Your task to perform on an android device: Search for "logitech g933" on walmart, select the first entry, and add it to the cart. Image 0: 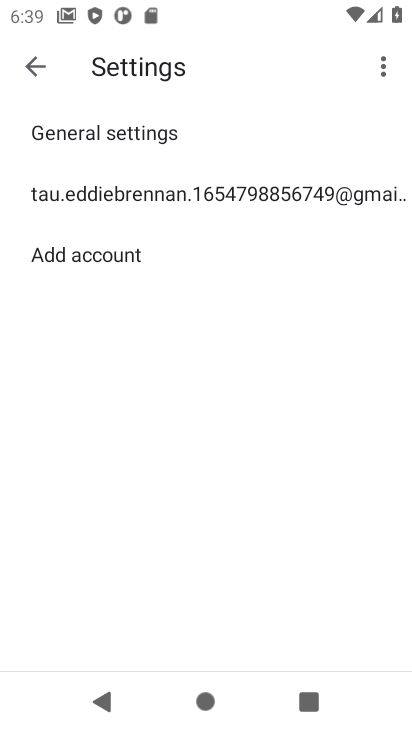
Step 0: press home button
Your task to perform on an android device: Search for "logitech g933" on walmart, select the first entry, and add it to the cart. Image 1: 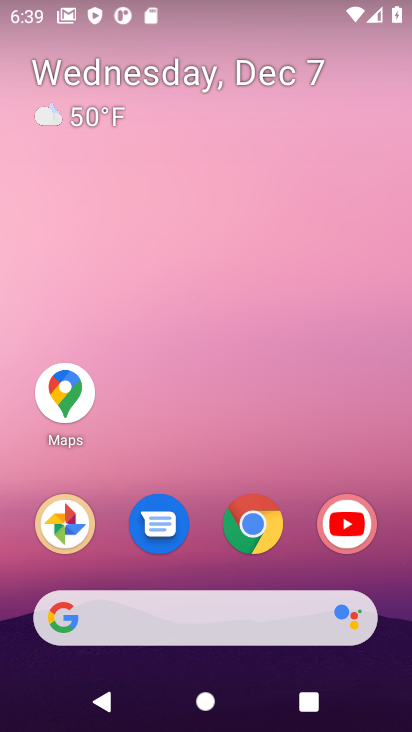
Step 1: click (252, 532)
Your task to perform on an android device: Search for "logitech g933" on walmart, select the first entry, and add it to the cart. Image 2: 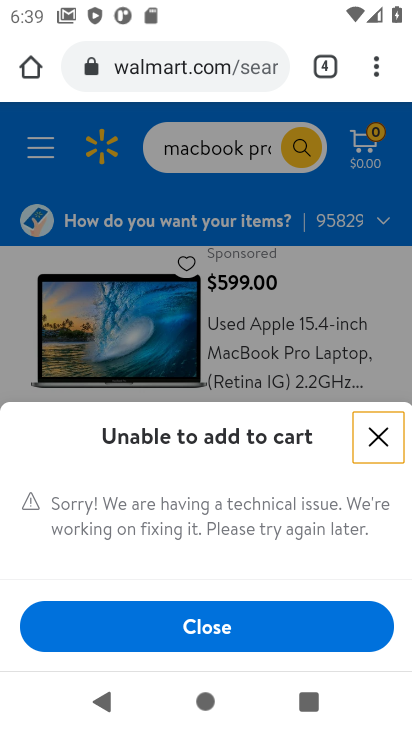
Step 2: click (386, 443)
Your task to perform on an android device: Search for "logitech g933" on walmart, select the first entry, and add it to the cart. Image 3: 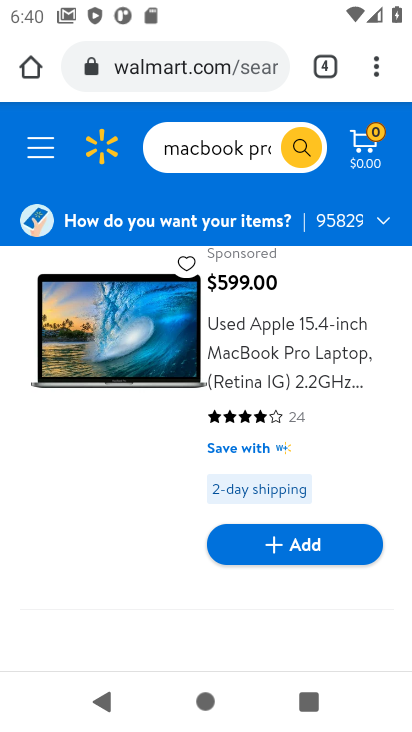
Step 3: click (249, 137)
Your task to perform on an android device: Search for "logitech g933" on walmart, select the first entry, and add it to the cart. Image 4: 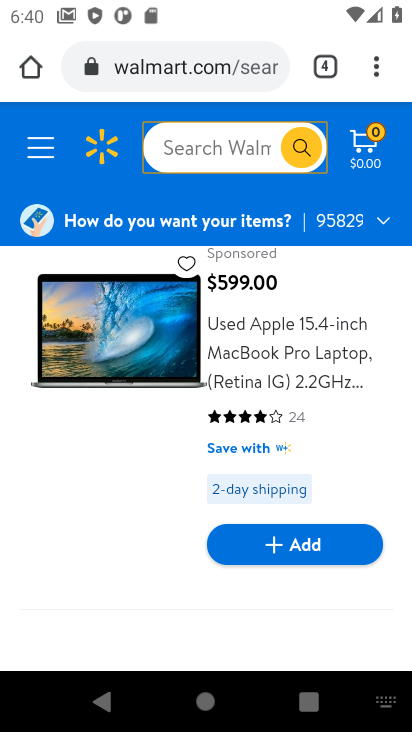
Step 4: type "logitech g933"
Your task to perform on an android device: Search for "logitech g933" on walmart, select the first entry, and add it to the cart. Image 5: 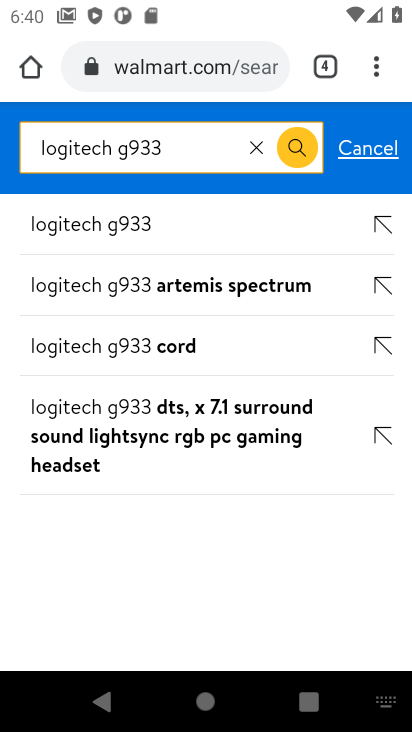
Step 5: click (134, 232)
Your task to perform on an android device: Search for "logitech g933" on walmart, select the first entry, and add it to the cart. Image 6: 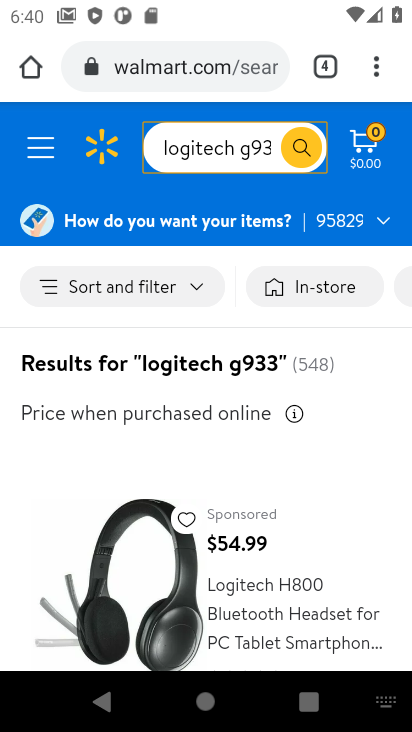
Step 6: task complete